Your task to perform on an android device: Open CNN.com Image 0: 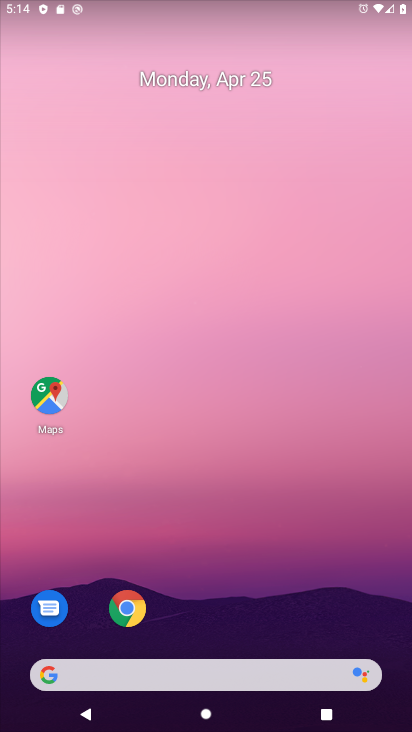
Step 0: drag from (280, 545) to (281, 26)
Your task to perform on an android device: Open CNN.com Image 1: 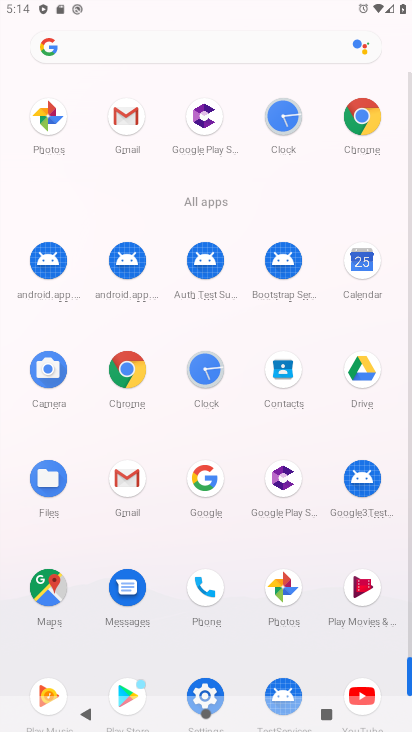
Step 1: click (127, 370)
Your task to perform on an android device: Open CNN.com Image 2: 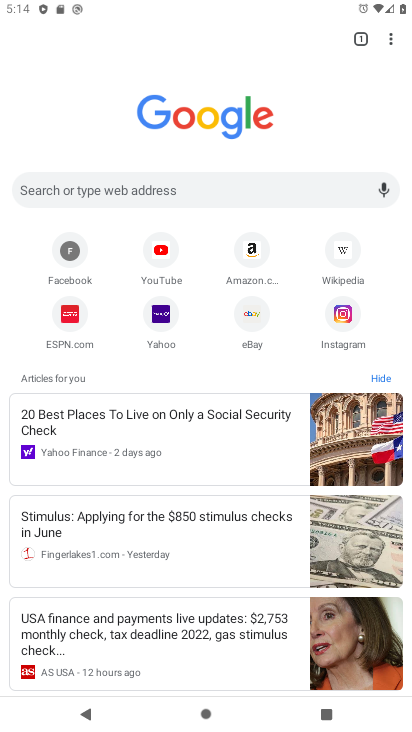
Step 2: click (188, 182)
Your task to perform on an android device: Open CNN.com Image 3: 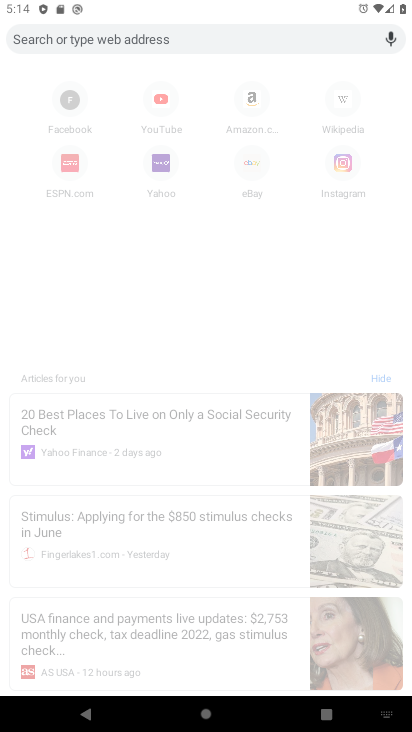
Step 3: type "CNN.com"
Your task to perform on an android device: Open CNN.com Image 4: 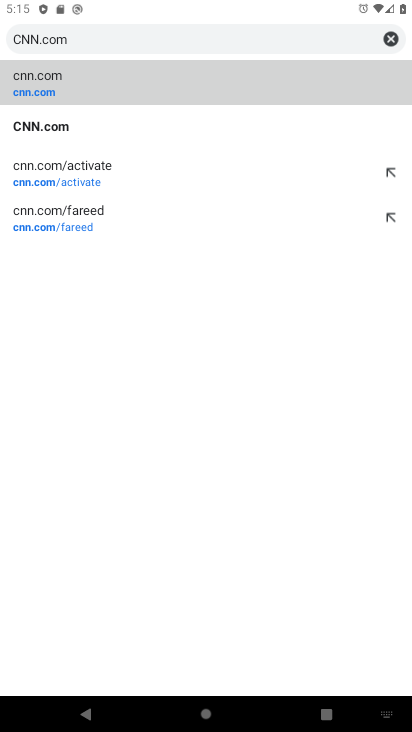
Step 4: click (116, 71)
Your task to perform on an android device: Open CNN.com Image 5: 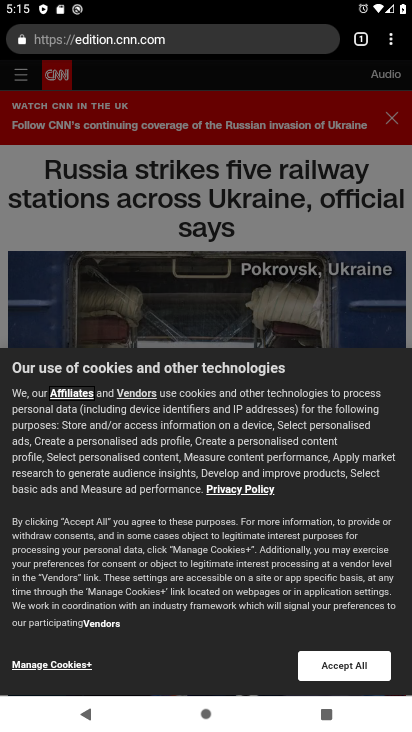
Step 5: task complete